Your task to perform on an android device: check data usage Image 0: 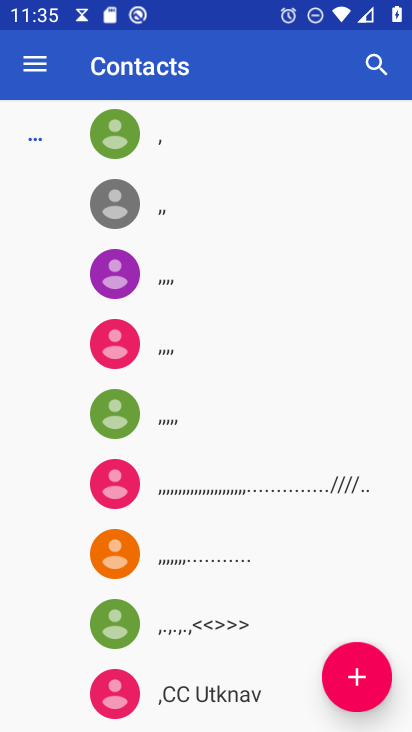
Step 0: press back button
Your task to perform on an android device: check data usage Image 1: 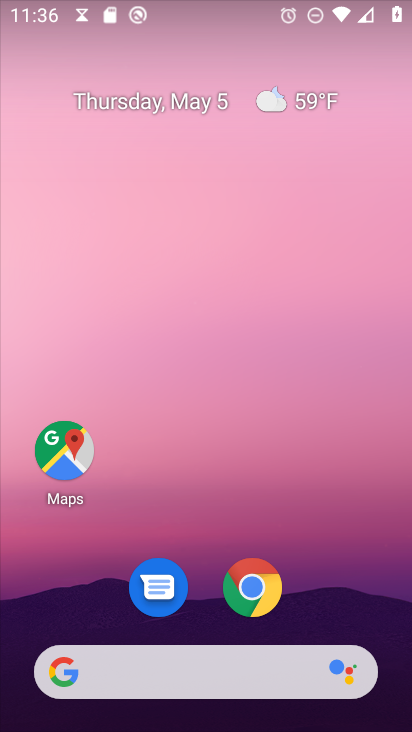
Step 1: drag from (310, 567) to (283, 18)
Your task to perform on an android device: check data usage Image 2: 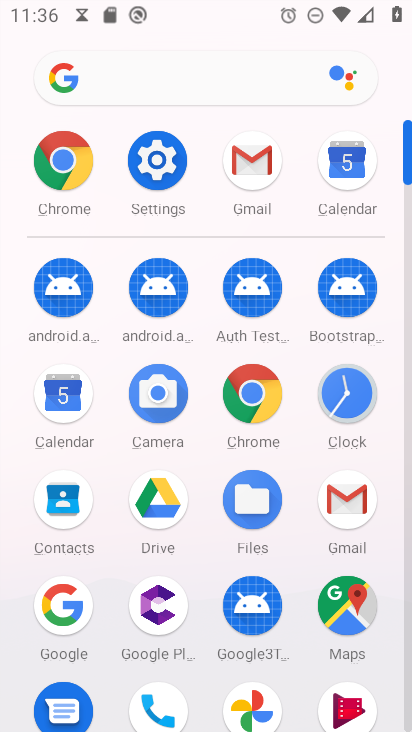
Step 2: click (157, 156)
Your task to perform on an android device: check data usage Image 3: 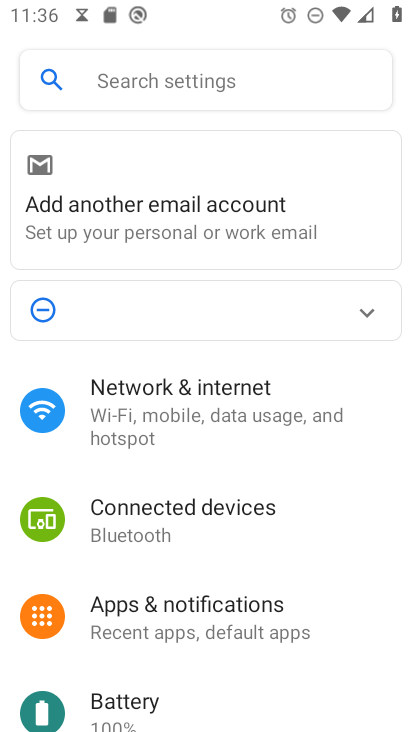
Step 3: click (160, 423)
Your task to perform on an android device: check data usage Image 4: 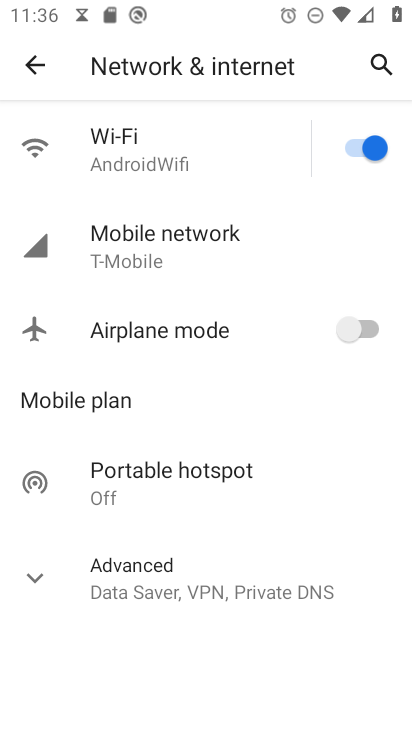
Step 4: click (175, 263)
Your task to perform on an android device: check data usage Image 5: 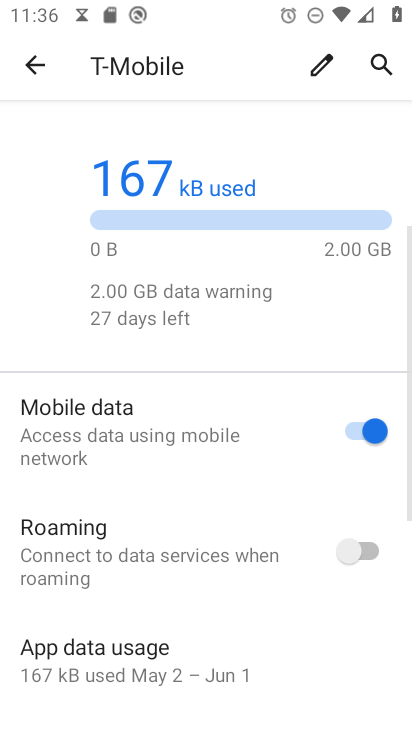
Step 5: drag from (199, 546) to (208, 201)
Your task to perform on an android device: check data usage Image 6: 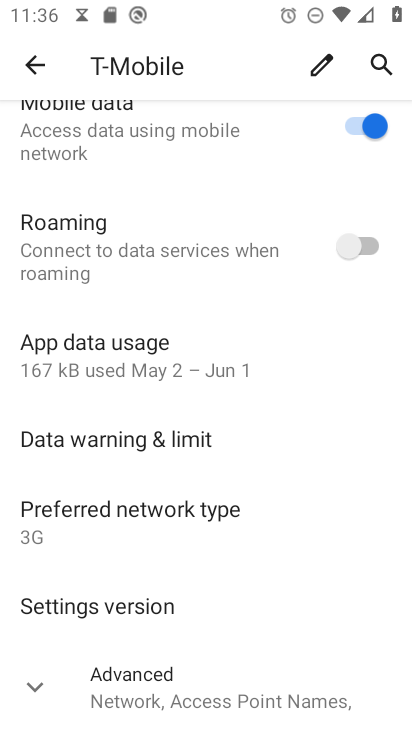
Step 6: drag from (137, 224) to (236, 125)
Your task to perform on an android device: check data usage Image 7: 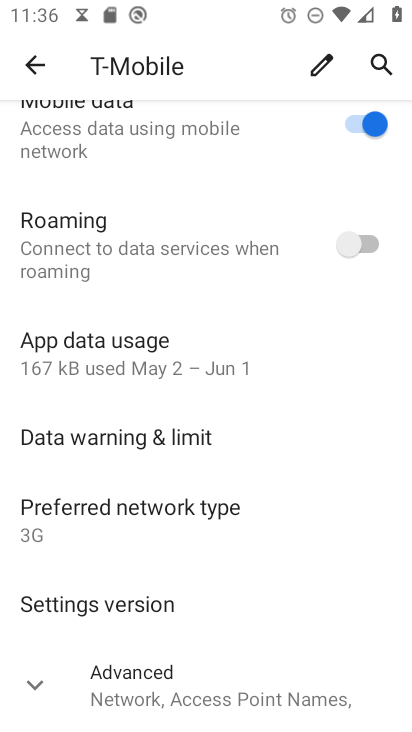
Step 7: click (36, 671)
Your task to perform on an android device: check data usage Image 8: 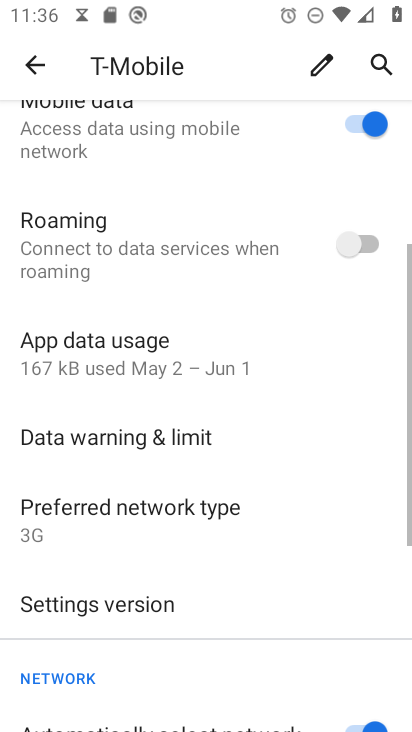
Step 8: task complete